Your task to perform on an android device: change text size in settings app Image 0: 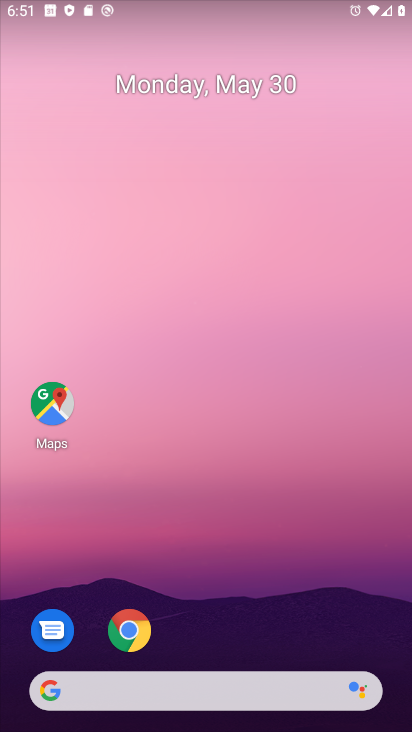
Step 0: drag from (323, 636) to (291, 12)
Your task to perform on an android device: change text size in settings app Image 1: 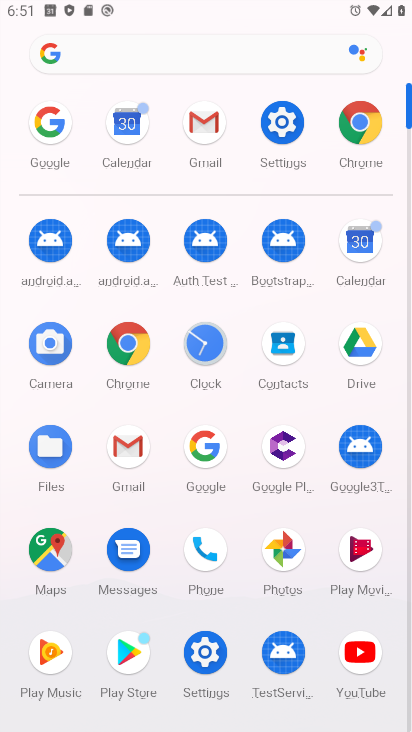
Step 1: click (276, 133)
Your task to perform on an android device: change text size in settings app Image 2: 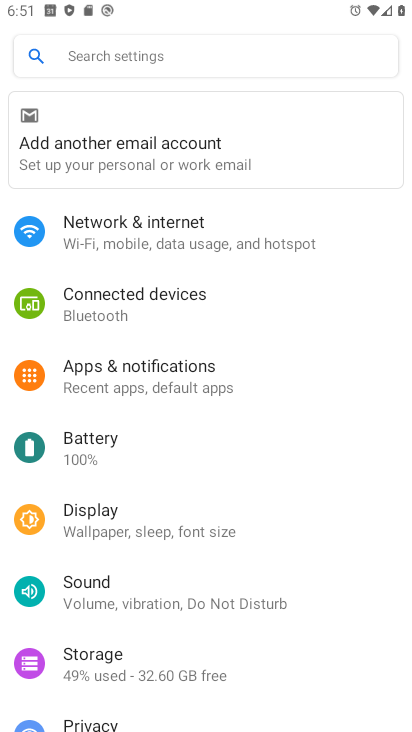
Step 2: click (93, 528)
Your task to perform on an android device: change text size in settings app Image 3: 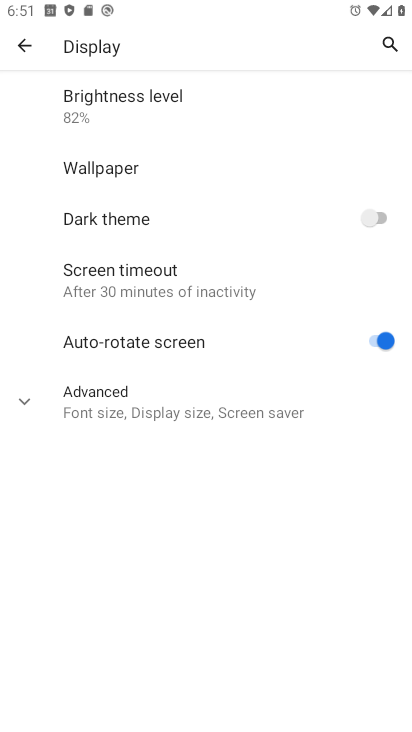
Step 3: click (116, 387)
Your task to perform on an android device: change text size in settings app Image 4: 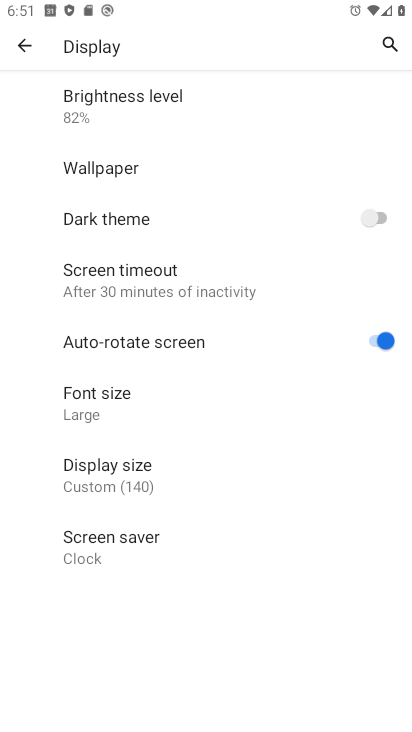
Step 4: click (134, 415)
Your task to perform on an android device: change text size in settings app Image 5: 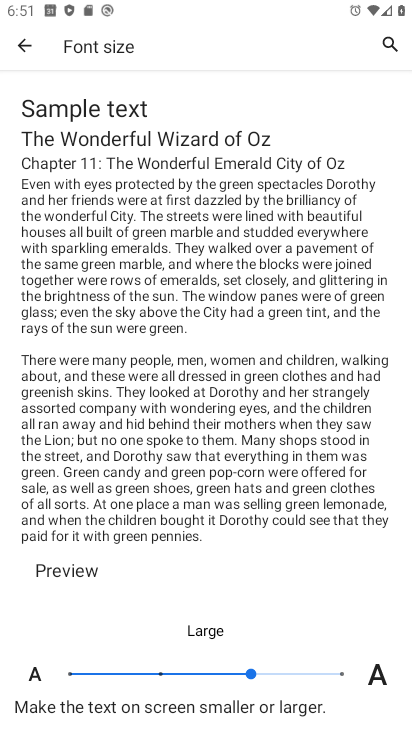
Step 5: click (167, 674)
Your task to perform on an android device: change text size in settings app Image 6: 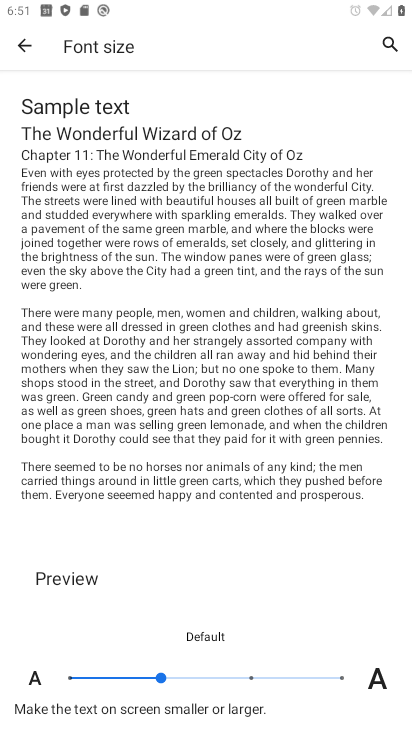
Step 6: task complete